Your task to perform on an android device: Show me popular videos on Youtube Image 0: 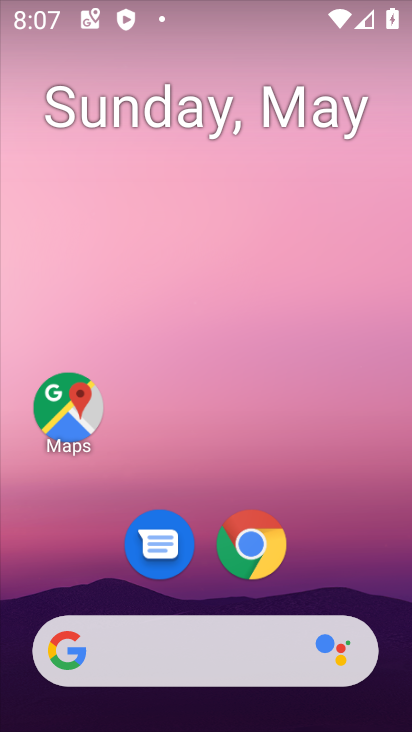
Step 0: drag from (335, 537) to (240, 9)
Your task to perform on an android device: Show me popular videos on Youtube Image 1: 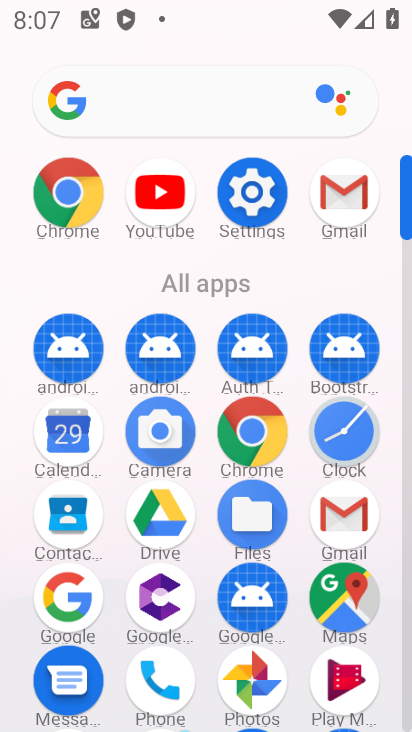
Step 1: drag from (15, 518) to (16, 225)
Your task to perform on an android device: Show me popular videos on Youtube Image 2: 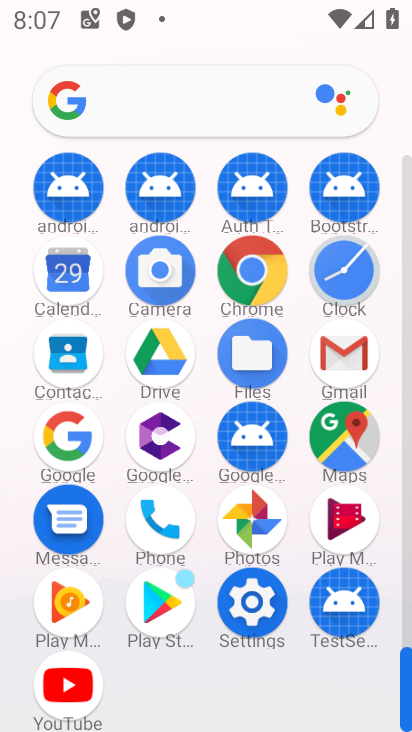
Step 2: click (70, 684)
Your task to perform on an android device: Show me popular videos on Youtube Image 3: 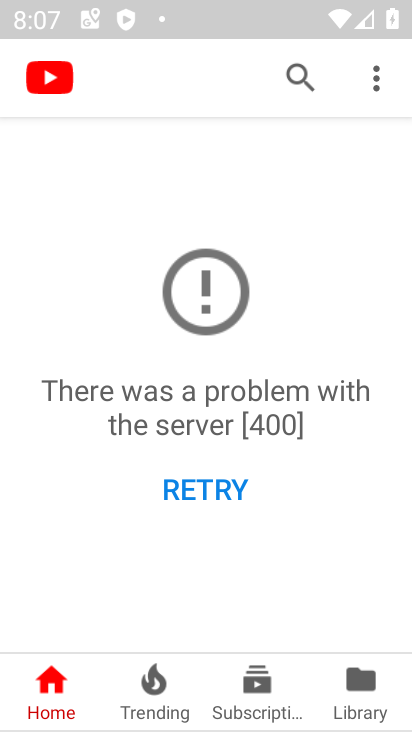
Step 3: click (63, 681)
Your task to perform on an android device: Show me popular videos on Youtube Image 4: 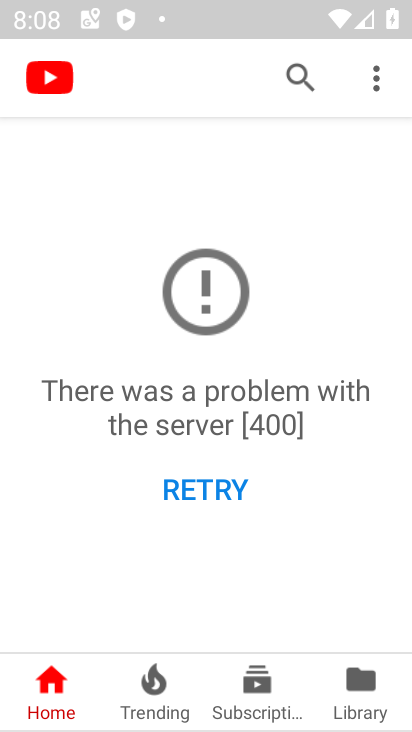
Step 4: task complete